Your task to perform on an android device: Open calendar and show me the fourth week of next month Image 0: 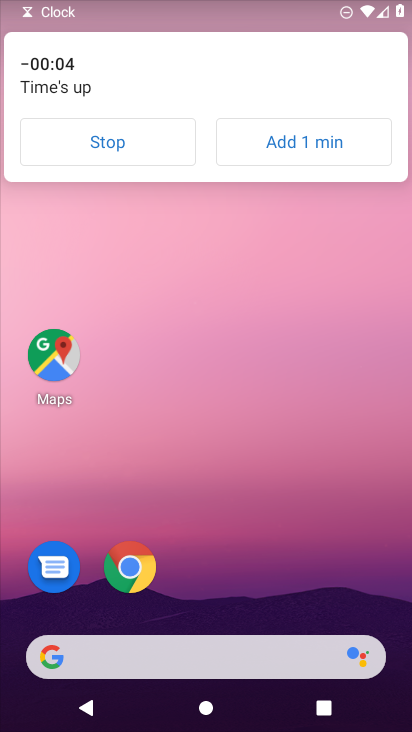
Step 0: click (64, 127)
Your task to perform on an android device: Open calendar and show me the fourth week of next month Image 1: 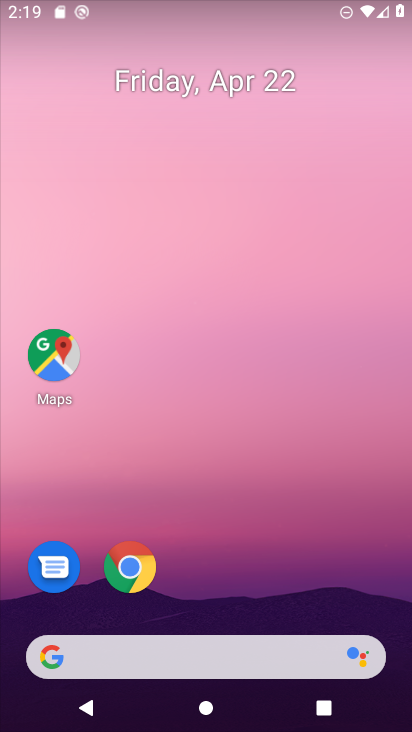
Step 1: drag from (233, 585) to (235, 157)
Your task to perform on an android device: Open calendar and show me the fourth week of next month Image 2: 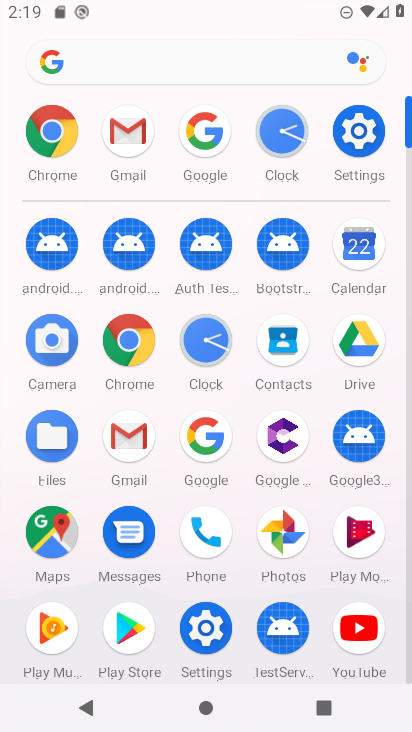
Step 2: click (363, 239)
Your task to perform on an android device: Open calendar and show me the fourth week of next month Image 3: 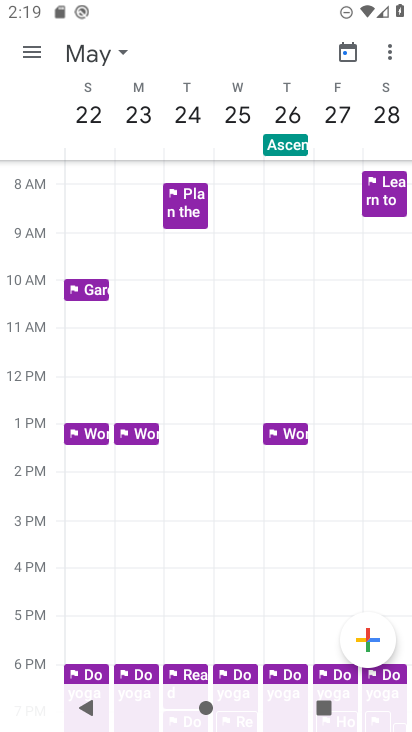
Step 3: task complete